Your task to perform on an android device: turn pop-ups off in chrome Image 0: 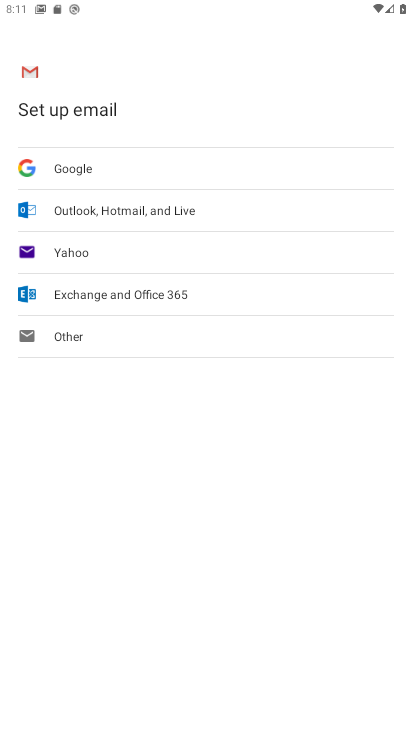
Step 0: press home button
Your task to perform on an android device: turn pop-ups off in chrome Image 1: 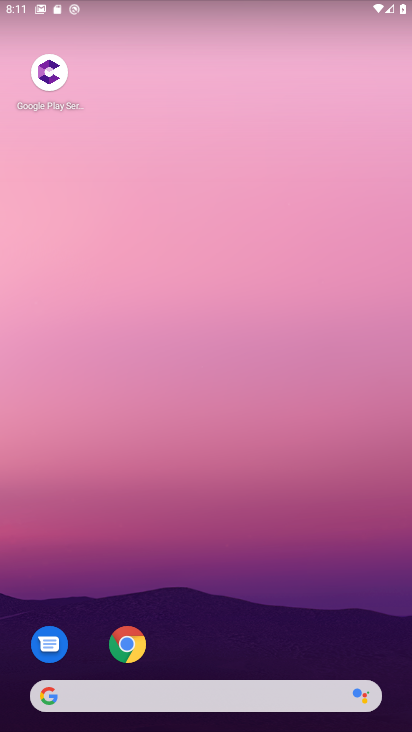
Step 1: drag from (220, 589) to (323, 114)
Your task to perform on an android device: turn pop-ups off in chrome Image 2: 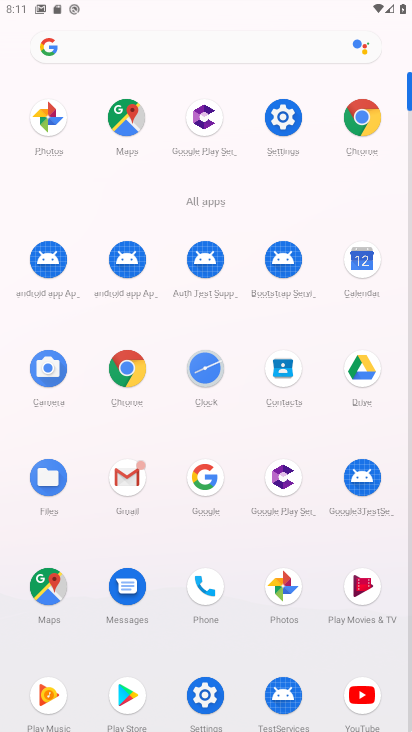
Step 2: click (378, 125)
Your task to perform on an android device: turn pop-ups off in chrome Image 3: 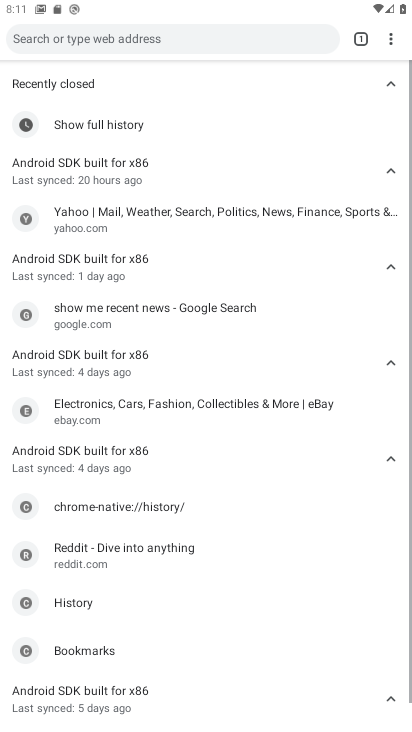
Step 3: drag from (160, 320) to (241, 718)
Your task to perform on an android device: turn pop-ups off in chrome Image 4: 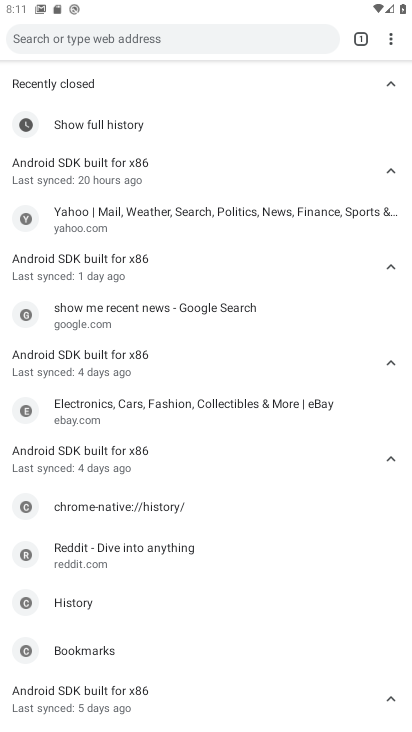
Step 4: drag from (403, 44) to (264, 331)
Your task to perform on an android device: turn pop-ups off in chrome Image 5: 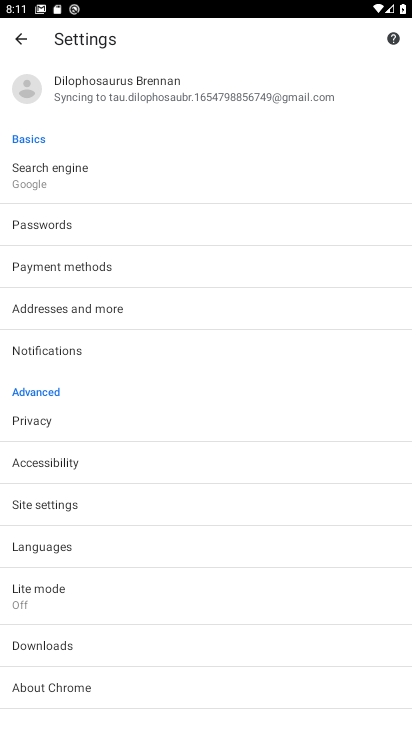
Step 5: click (78, 509)
Your task to perform on an android device: turn pop-ups off in chrome Image 6: 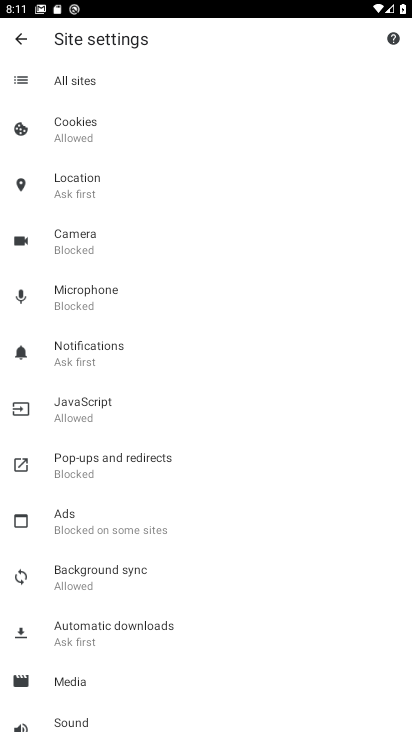
Step 6: click (110, 455)
Your task to perform on an android device: turn pop-ups off in chrome Image 7: 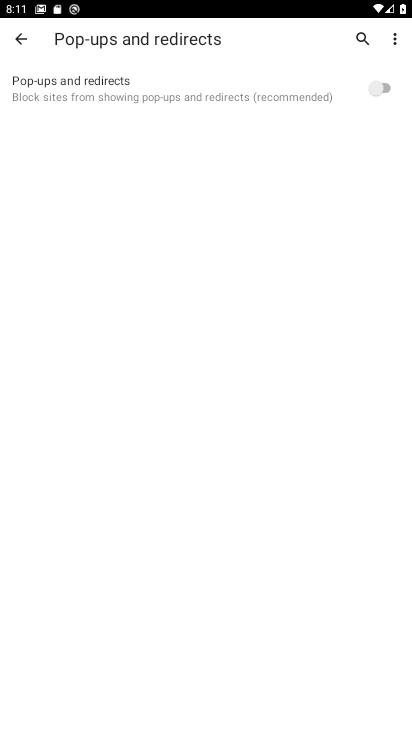
Step 7: task complete